Your task to perform on an android device: stop showing notifications on the lock screen Image 0: 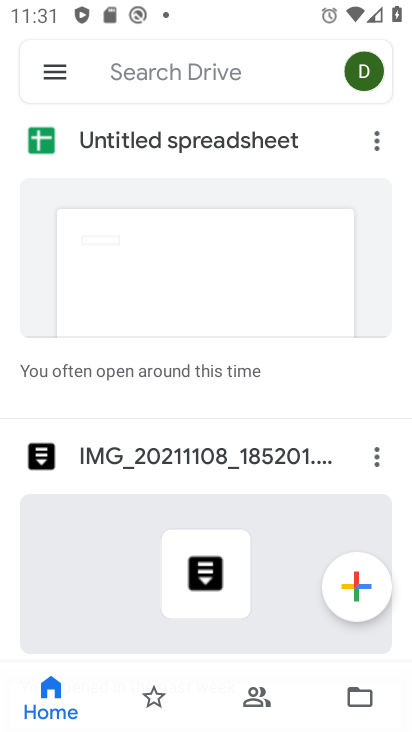
Step 0: press home button
Your task to perform on an android device: stop showing notifications on the lock screen Image 1: 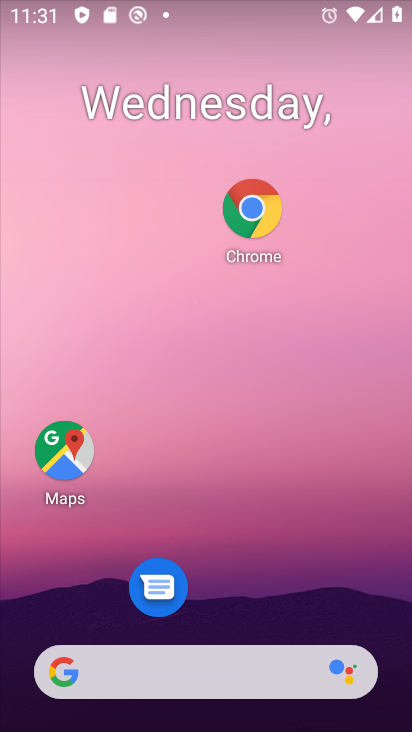
Step 1: drag from (235, 613) to (225, 86)
Your task to perform on an android device: stop showing notifications on the lock screen Image 2: 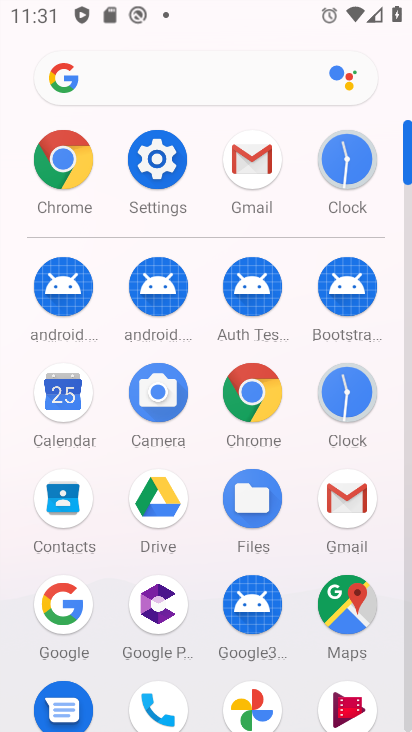
Step 2: click (157, 174)
Your task to perform on an android device: stop showing notifications on the lock screen Image 3: 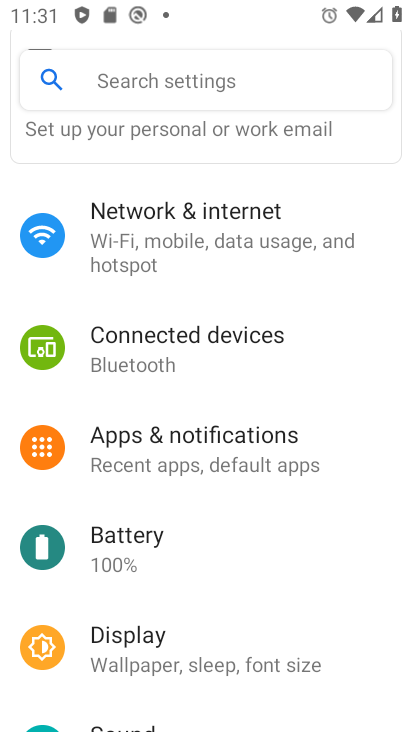
Step 3: click (207, 445)
Your task to perform on an android device: stop showing notifications on the lock screen Image 4: 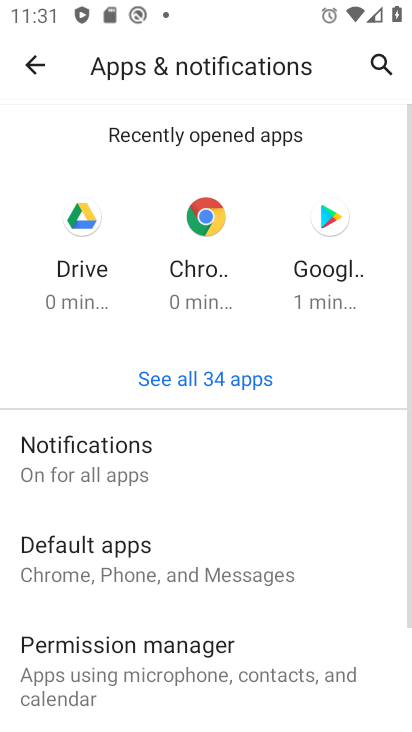
Step 4: click (116, 465)
Your task to perform on an android device: stop showing notifications on the lock screen Image 5: 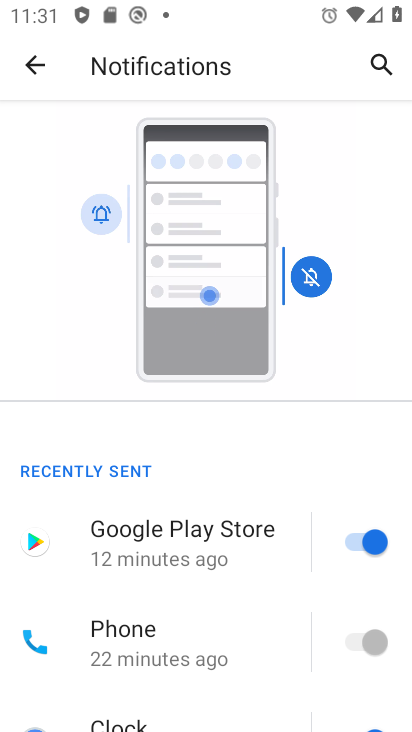
Step 5: drag from (193, 611) to (251, 253)
Your task to perform on an android device: stop showing notifications on the lock screen Image 6: 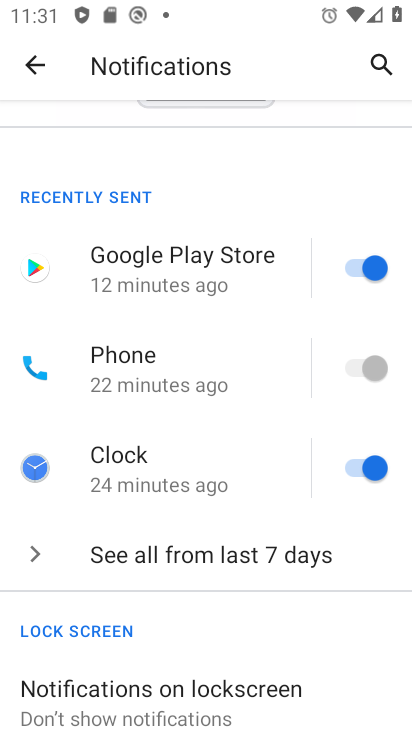
Step 6: click (164, 179)
Your task to perform on an android device: stop showing notifications on the lock screen Image 7: 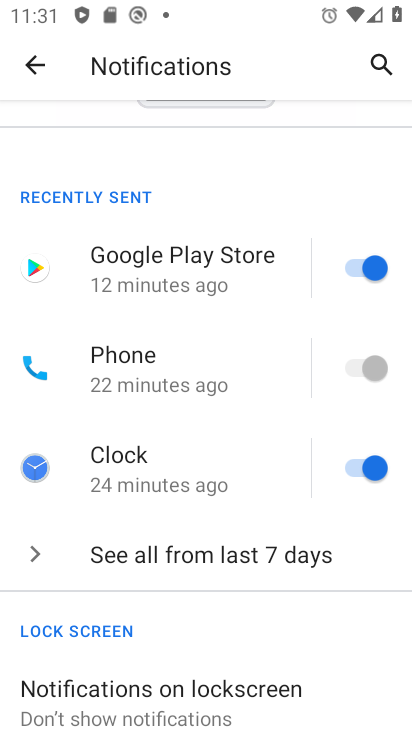
Step 7: click (154, 701)
Your task to perform on an android device: stop showing notifications on the lock screen Image 8: 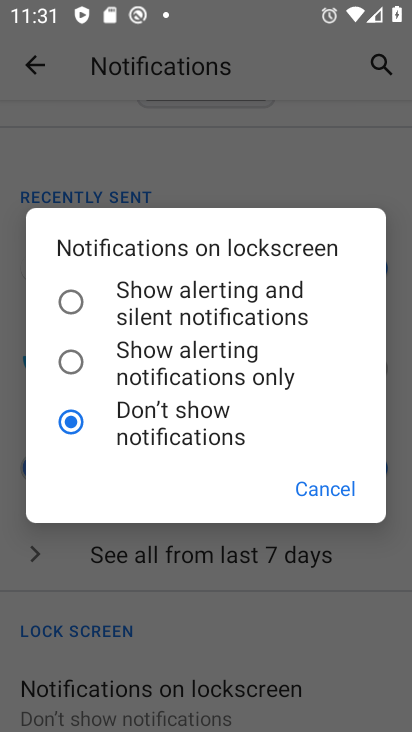
Step 8: task complete